Your task to perform on an android device: set the stopwatch Image 0: 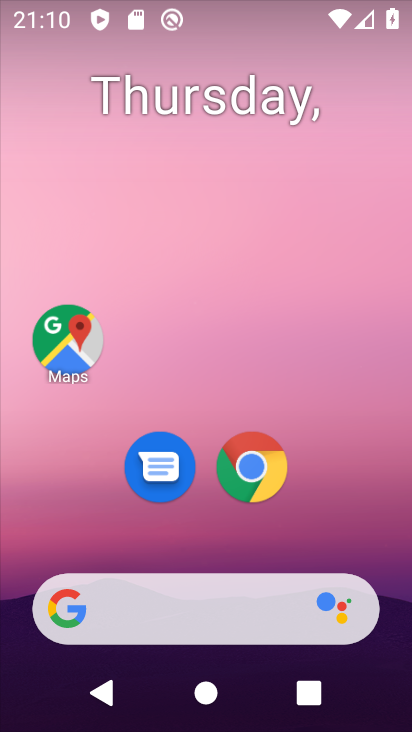
Step 0: drag from (355, 378) to (315, 41)
Your task to perform on an android device: set the stopwatch Image 1: 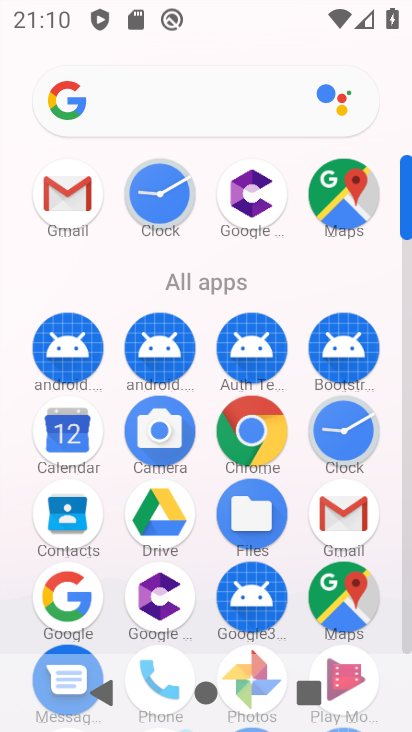
Step 1: click (341, 416)
Your task to perform on an android device: set the stopwatch Image 2: 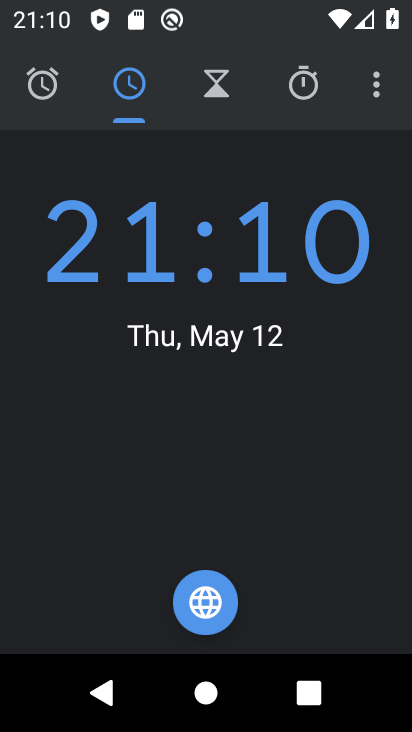
Step 2: click (304, 81)
Your task to perform on an android device: set the stopwatch Image 3: 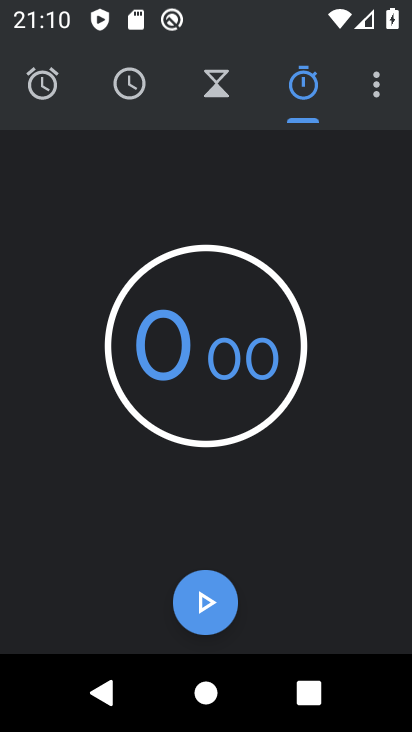
Step 3: click (214, 594)
Your task to perform on an android device: set the stopwatch Image 4: 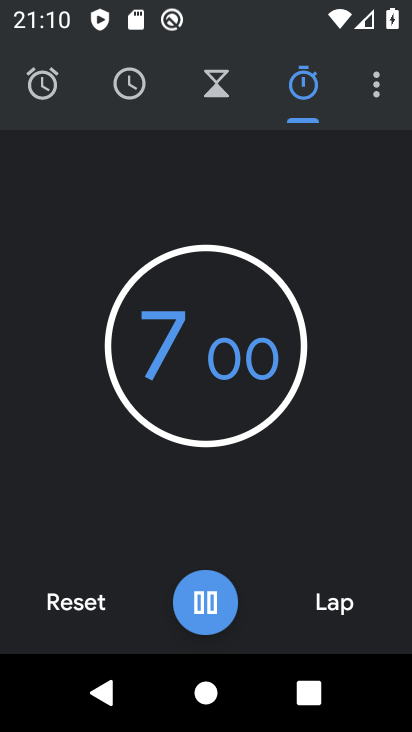
Step 4: click (203, 598)
Your task to perform on an android device: set the stopwatch Image 5: 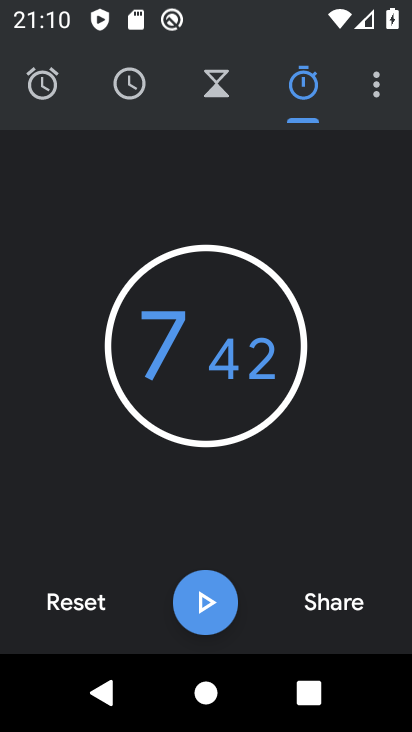
Step 5: task complete